Your task to perform on an android device: Play the last video I watched on Youtube Image 0: 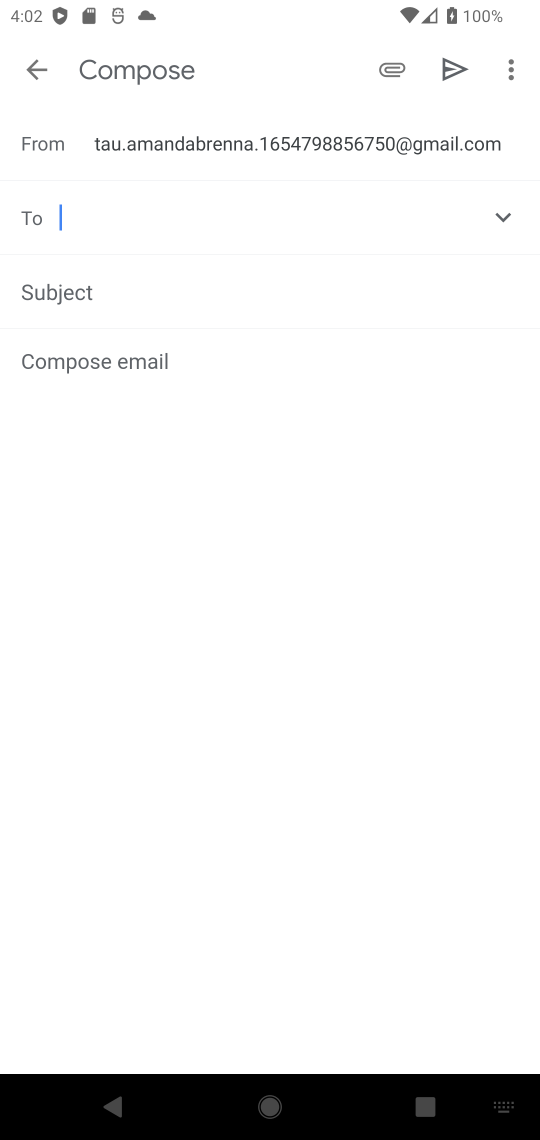
Step 0: press home button
Your task to perform on an android device: Play the last video I watched on Youtube Image 1: 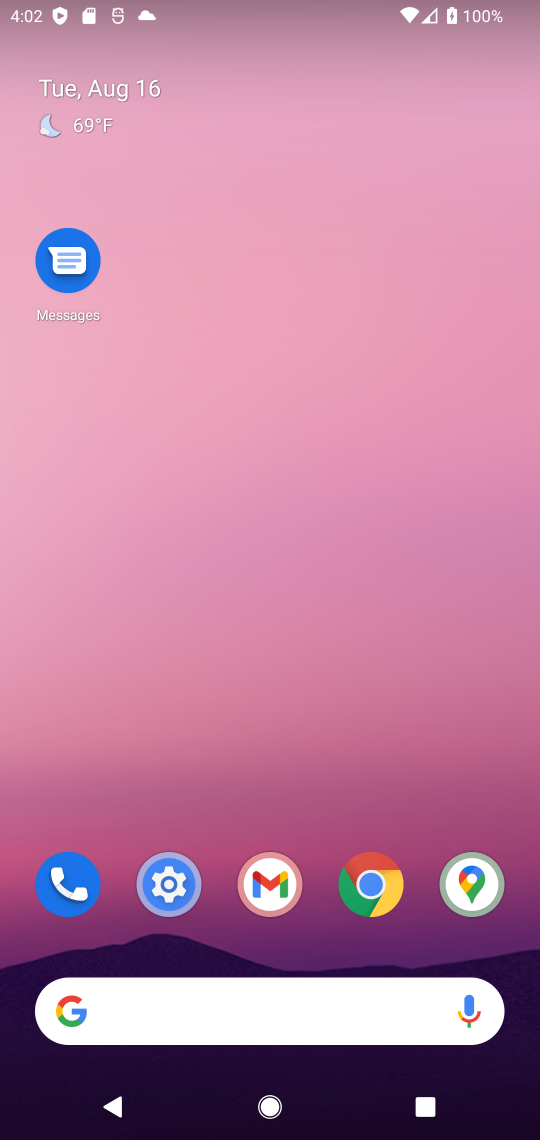
Step 1: drag from (55, 1099) to (139, 174)
Your task to perform on an android device: Play the last video I watched on Youtube Image 2: 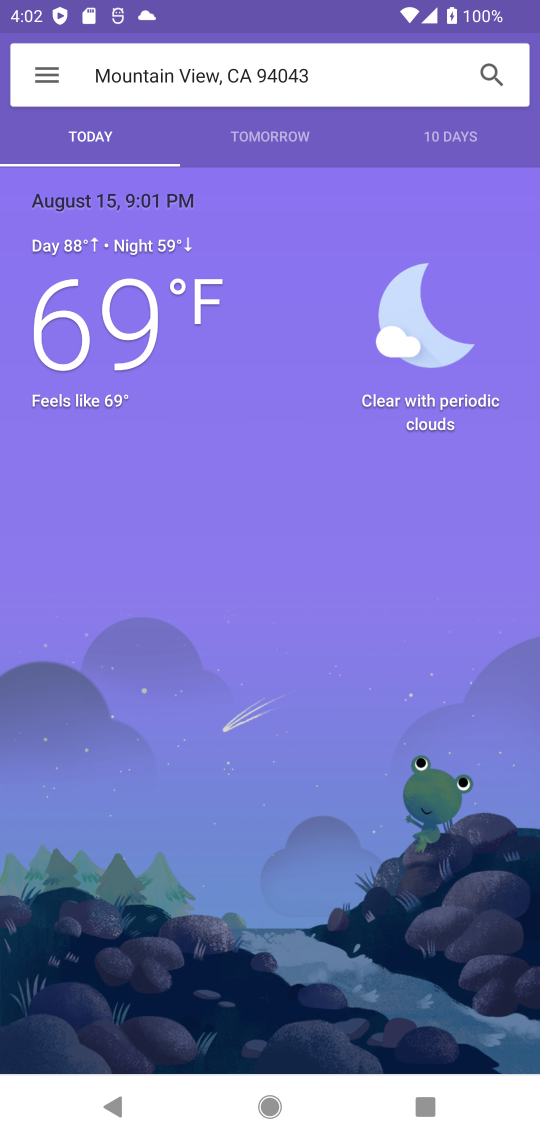
Step 2: press home button
Your task to perform on an android device: Play the last video I watched on Youtube Image 3: 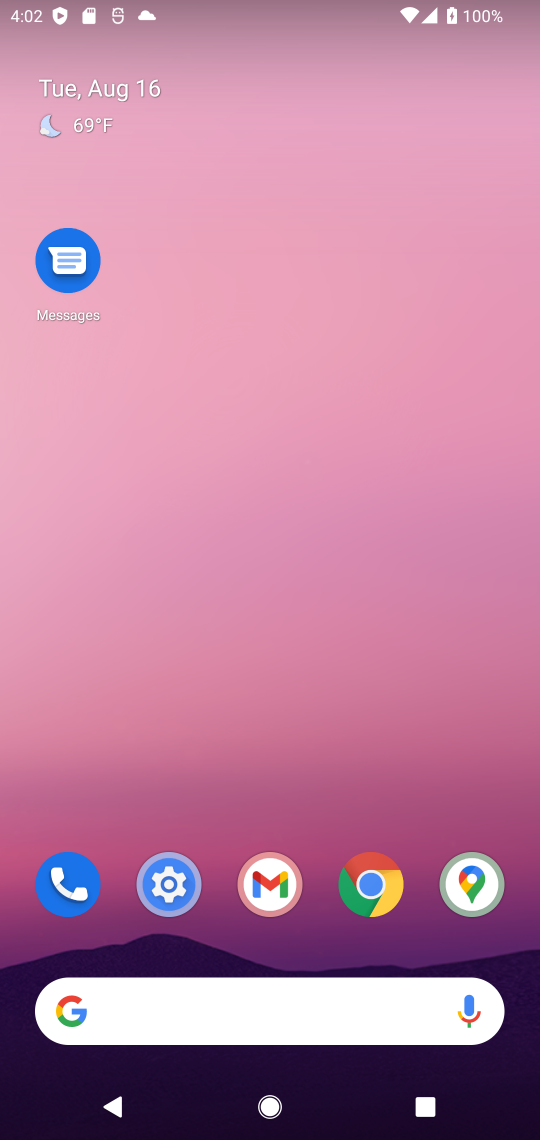
Step 3: drag from (81, 1077) to (337, 38)
Your task to perform on an android device: Play the last video I watched on Youtube Image 4: 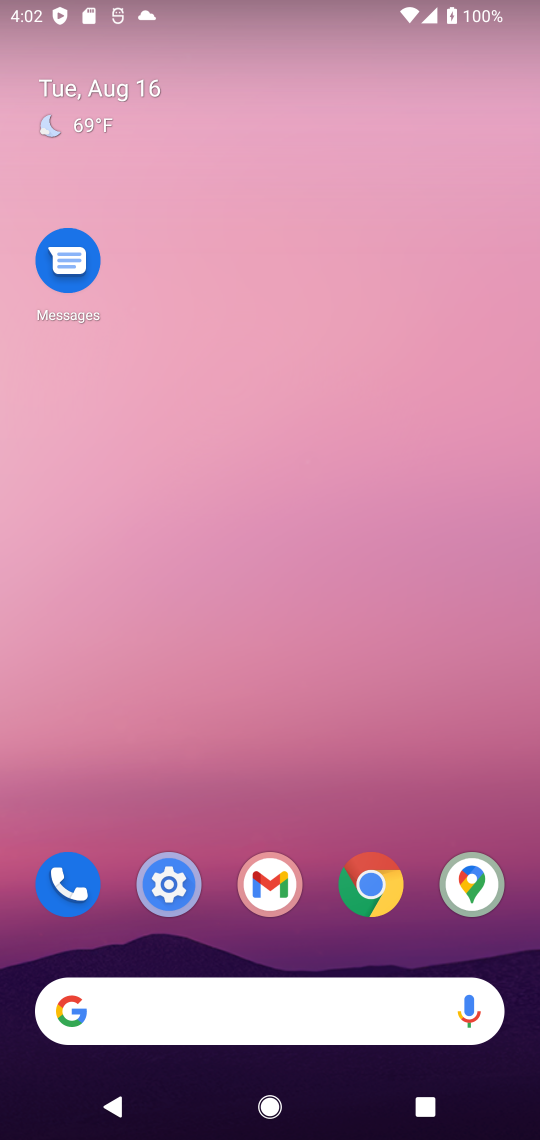
Step 4: drag from (49, 1082) to (162, 69)
Your task to perform on an android device: Play the last video I watched on Youtube Image 5: 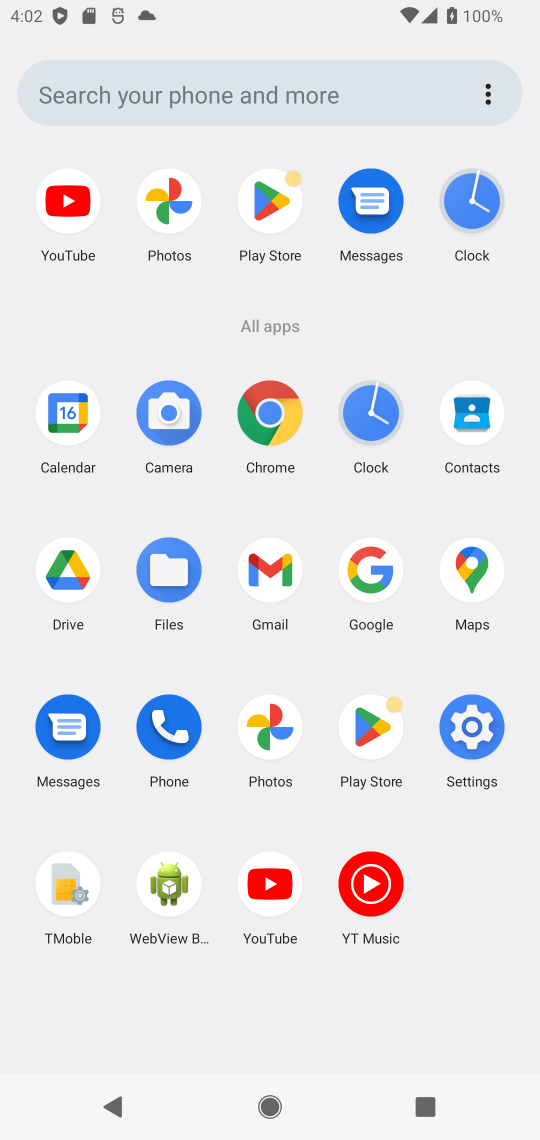
Step 5: click (269, 881)
Your task to perform on an android device: Play the last video I watched on Youtube Image 6: 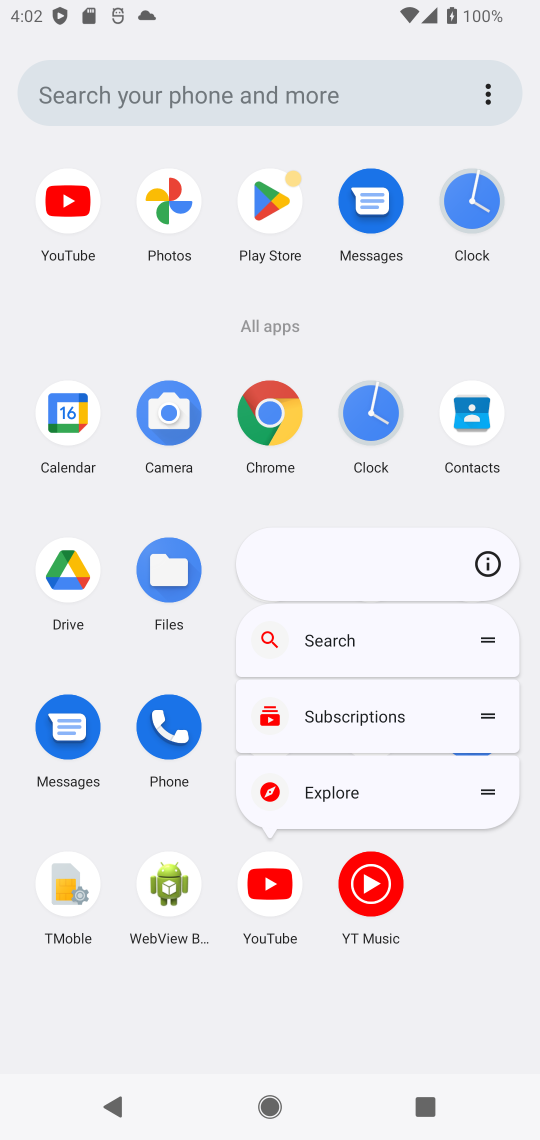
Step 6: click (266, 900)
Your task to perform on an android device: Play the last video I watched on Youtube Image 7: 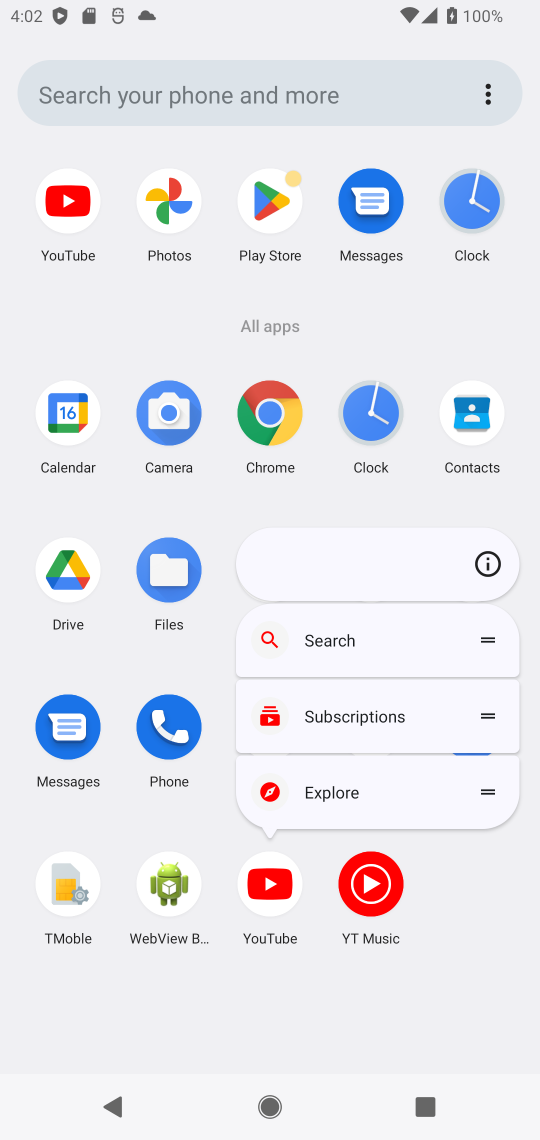
Step 7: click (281, 894)
Your task to perform on an android device: Play the last video I watched on Youtube Image 8: 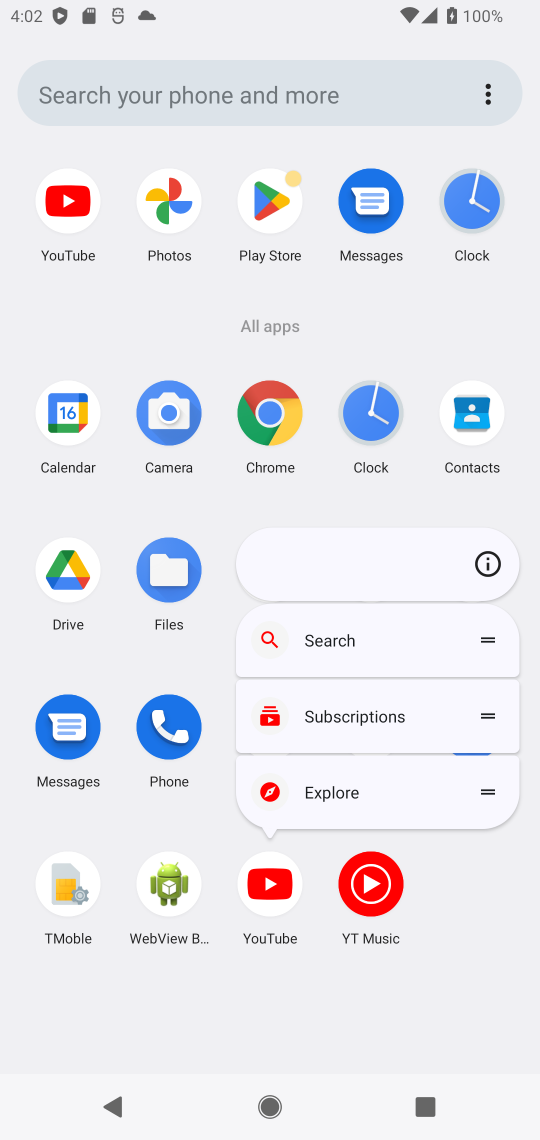
Step 8: click (262, 879)
Your task to perform on an android device: Play the last video I watched on Youtube Image 9: 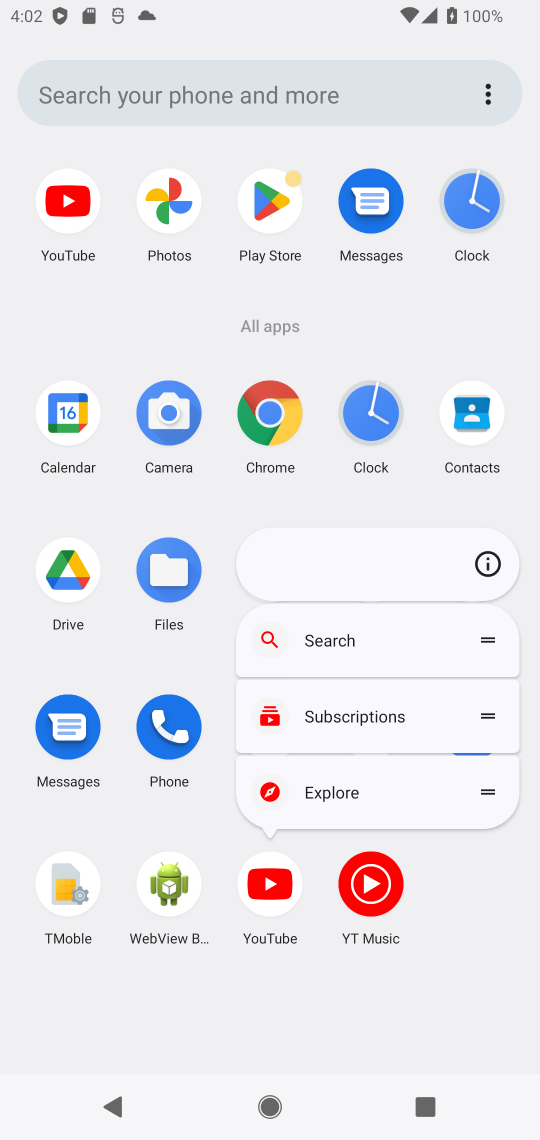
Step 9: click (262, 879)
Your task to perform on an android device: Play the last video I watched on Youtube Image 10: 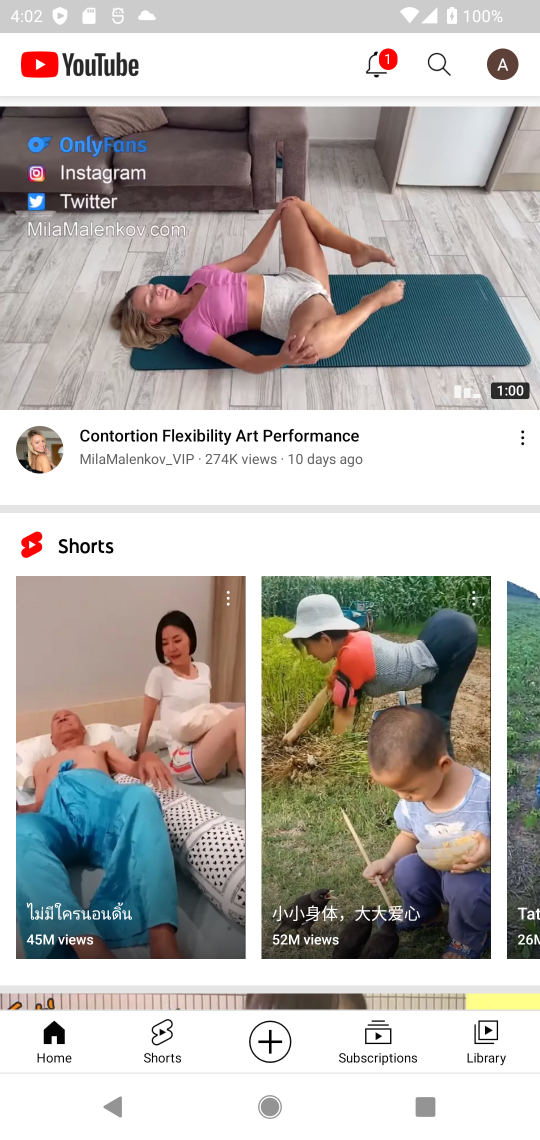
Step 10: click (487, 1039)
Your task to perform on an android device: Play the last video I watched on Youtube Image 11: 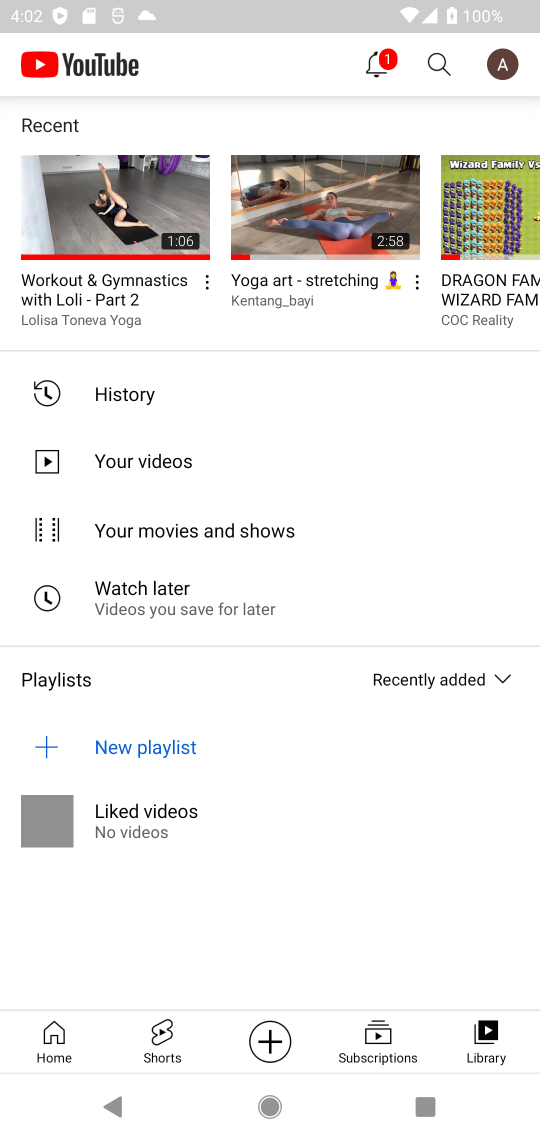
Step 11: click (76, 203)
Your task to perform on an android device: Play the last video I watched on Youtube Image 12: 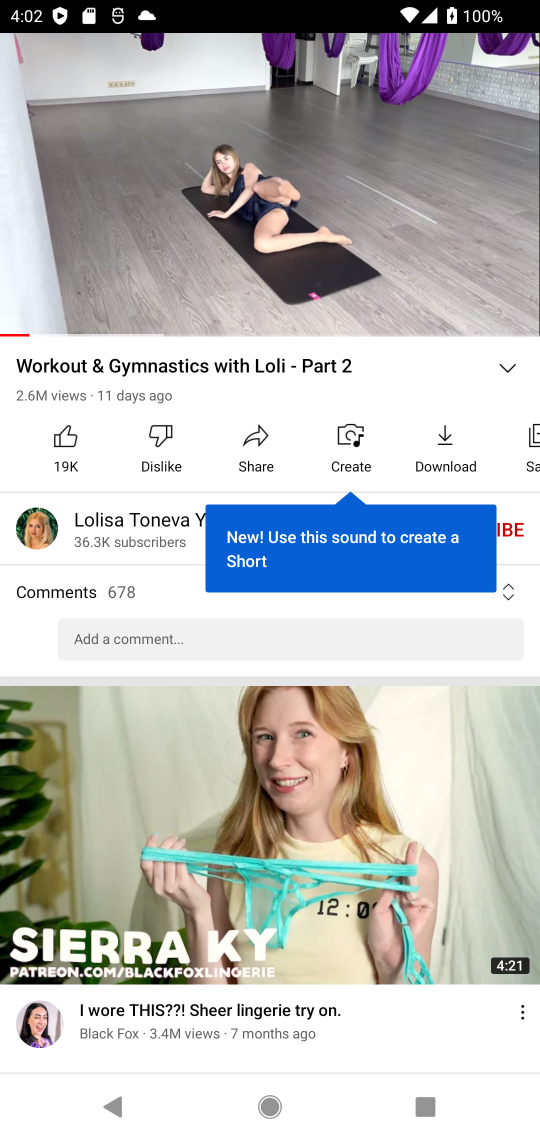
Step 12: task complete